Your task to perform on an android device: find snoozed emails in the gmail app Image 0: 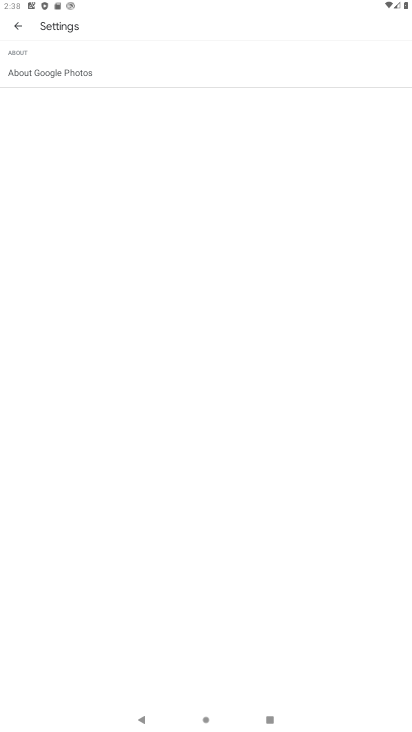
Step 0: press home button
Your task to perform on an android device: find snoozed emails in the gmail app Image 1: 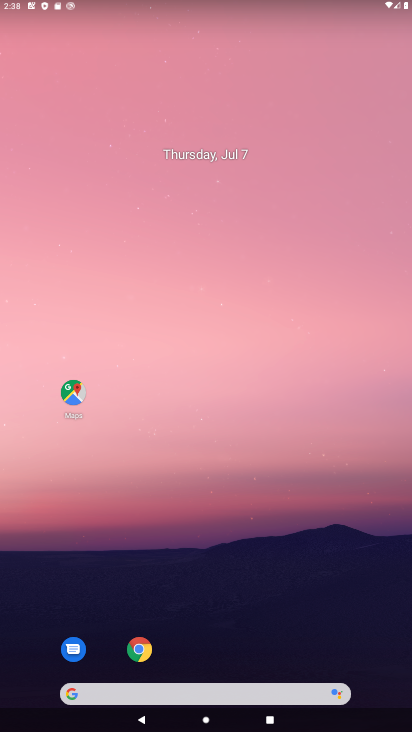
Step 1: drag from (324, 704) to (237, 147)
Your task to perform on an android device: find snoozed emails in the gmail app Image 2: 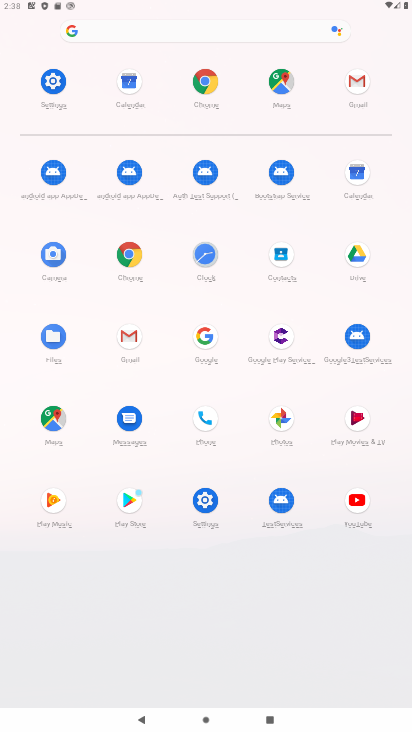
Step 2: click (127, 335)
Your task to perform on an android device: find snoozed emails in the gmail app Image 3: 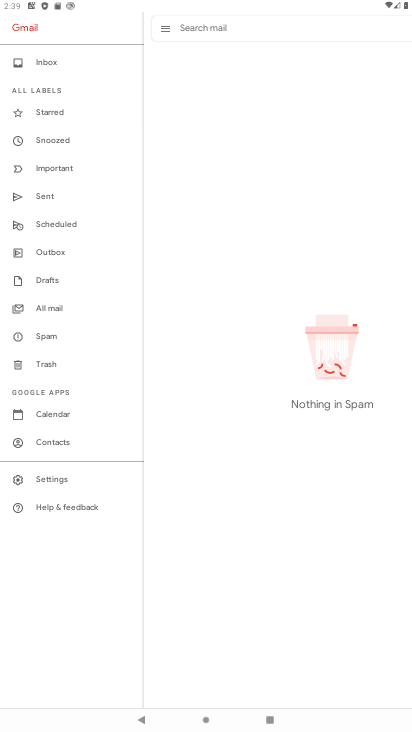
Step 3: click (40, 138)
Your task to perform on an android device: find snoozed emails in the gmail app Image 4: 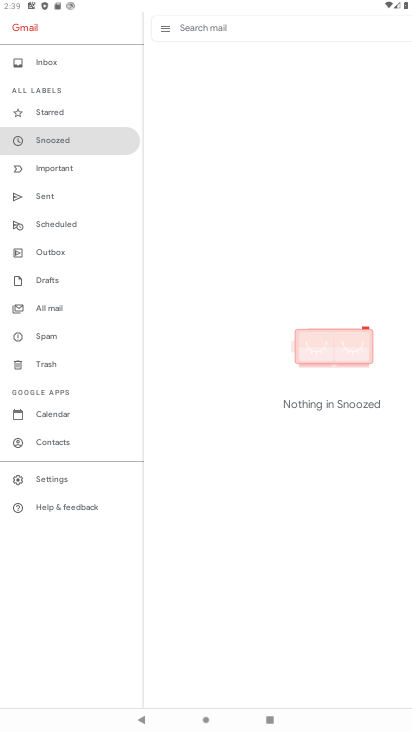
Step 4: click (51, 145)
Your task to perform on an android device: find snoozed emails in the gmail app Image 5: 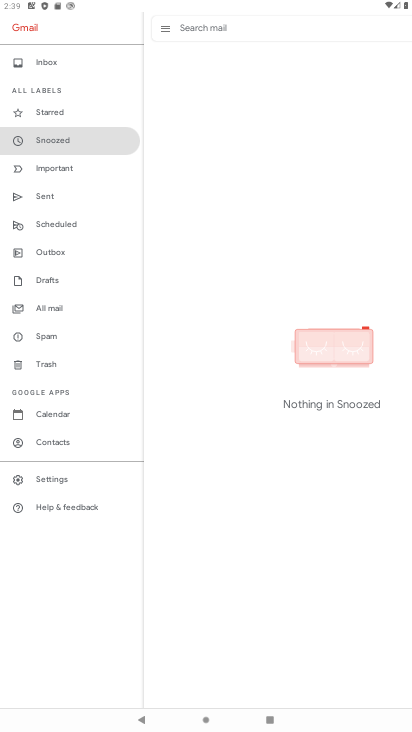
Step 5: task complete